Your task to perform on an android device: Turn on the flashlight Image 0: 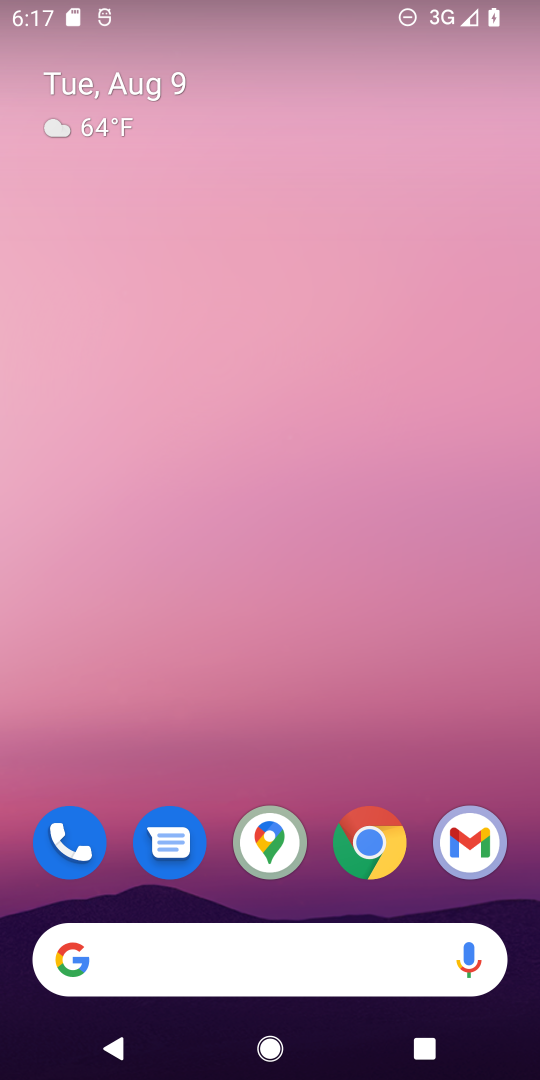
Step 0: drag from (151, 511) to (140, 166)
Your task to perform on an android device: Turn on the flashlight Image 1: 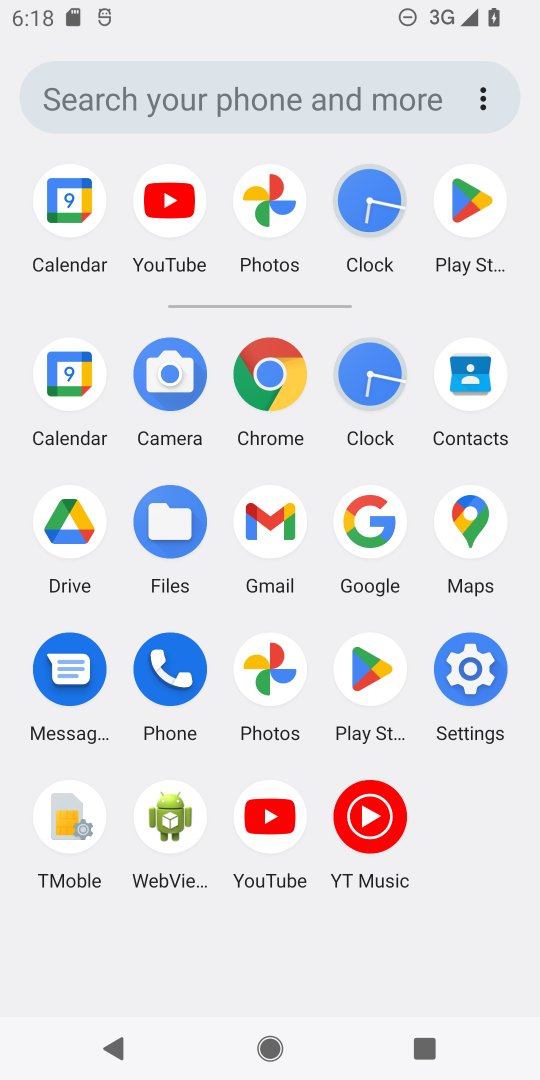
Step 1: click (497, 659)
Your task to perform on an android device: Turn on the flashlight Image 2: 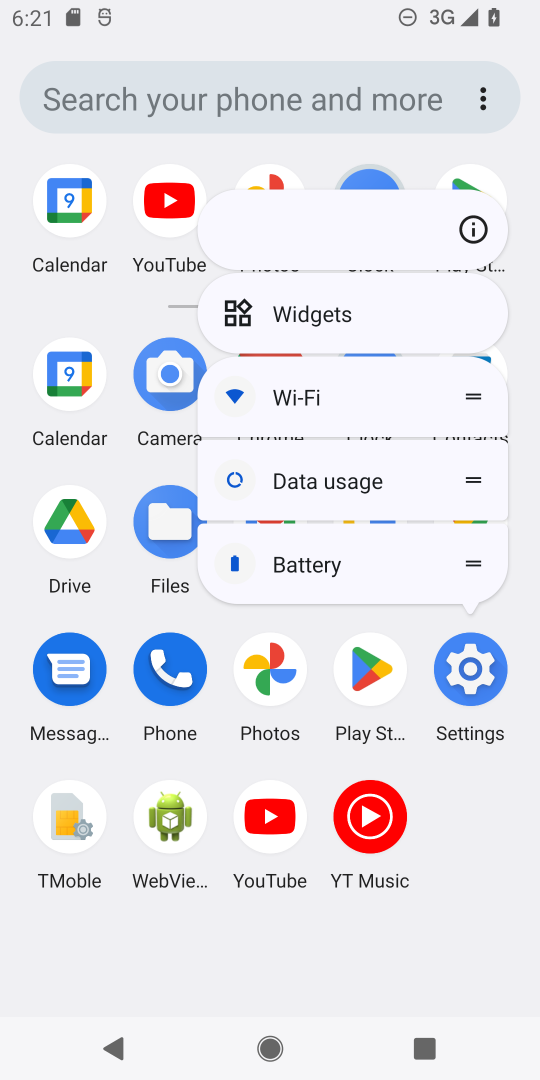
Step 2: click (498, 677)
Your task to perform on an android device: Turn on the flashlight Image 3: 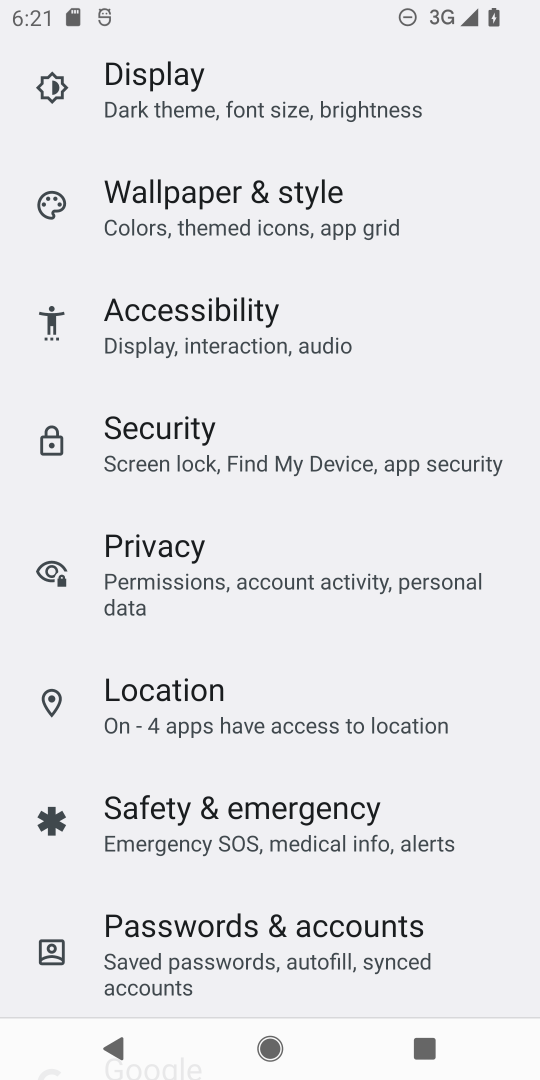
Step 3: task complete